Your task to perform on an android device: Open calendar and show me the third week of next month Image 0: 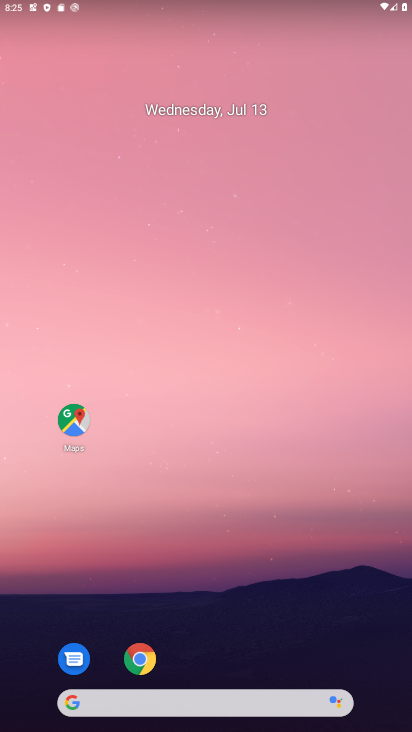
Step 0: drag from (204, 422) to (191, 21)
Your task to perform on an android device: Open calendar and show me the third week of next month Image 1: 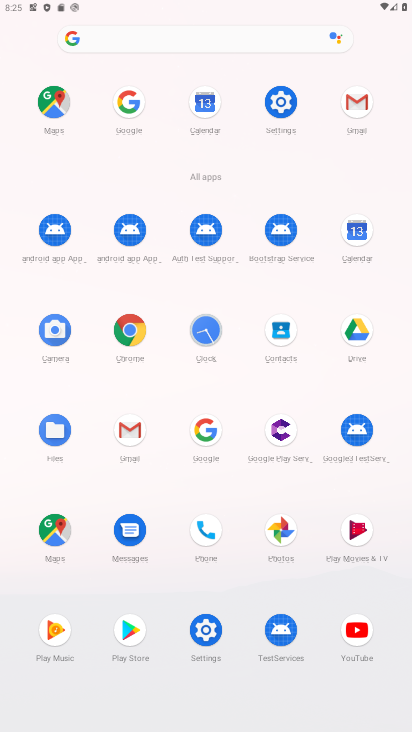
Step 1: click (367, 231)
Your task to perform on an android device: Open calendar and show me the third week of next month Image 2: 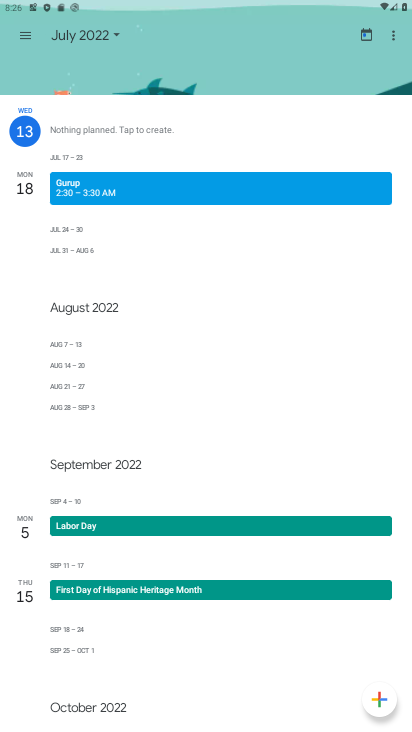
Step 2: click (108, 25)
Your task to perform on an android device: Open calendar and show me the third week of next month Image 3: 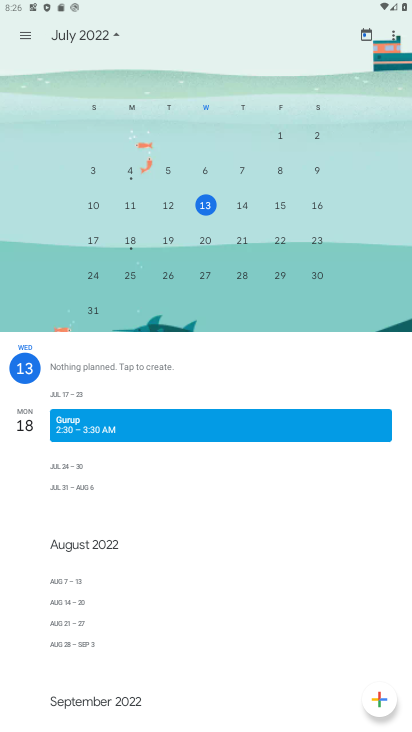
Step 3: drag from (326, 176) to (8, 206)
Your task to perform on an android device: Open calendar and show me the third week of next month Image 4: 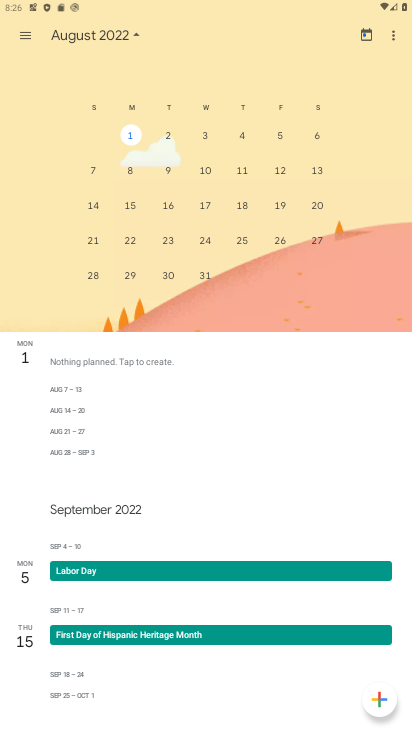
Step 4: click (90, 201)
Your task to perform on an android device: Open calendar and show me the third week of next month Image 5: 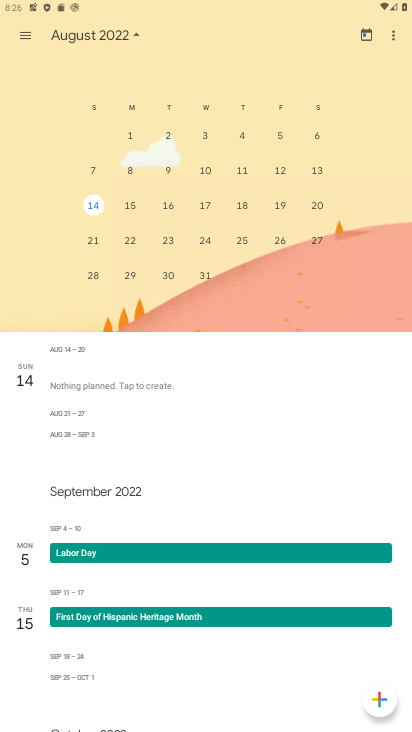
Step 5: click (130, 203)
Your task to perform on an android device: Open calendar and show me the third week of next month Image 6: 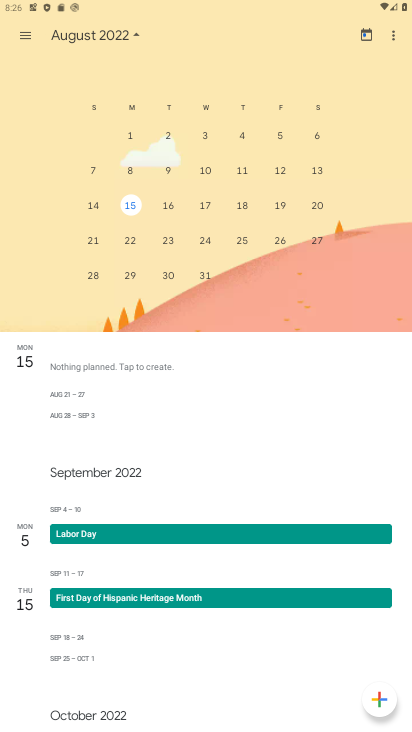
Step 6: click (102, 207)
Your task to perform on an android device: Open calendar and show me the third week of next month Image 7: 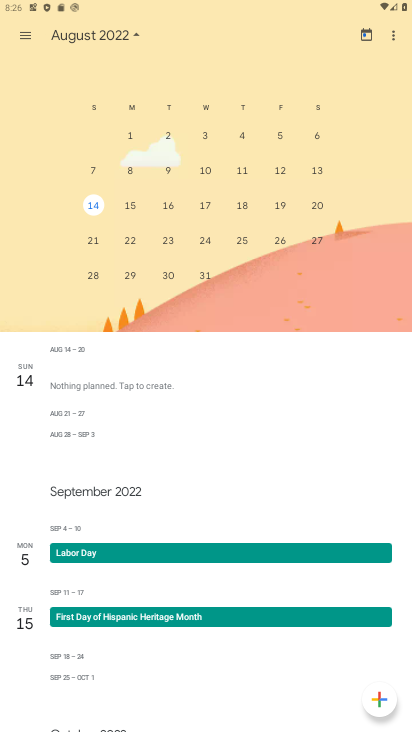
Step 7: task complete